Your task to perform on an android device: Open calendar and show me the first week of next month Image 0: 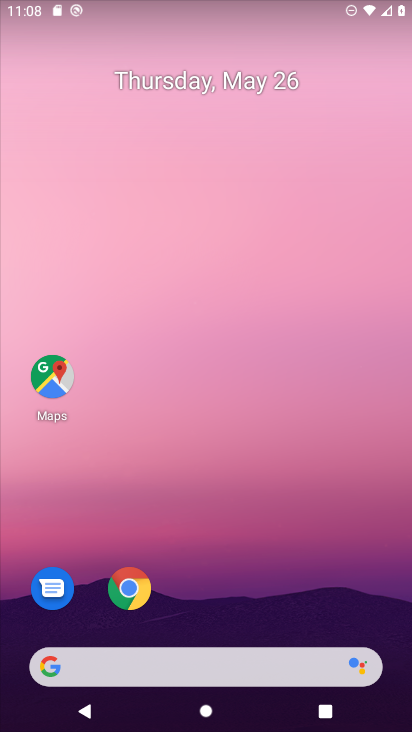
Step 0: drag from (382, 618) to (343, 95)
Your task to perform on an android device: Open calendar and show me the first week of next month Image 1: 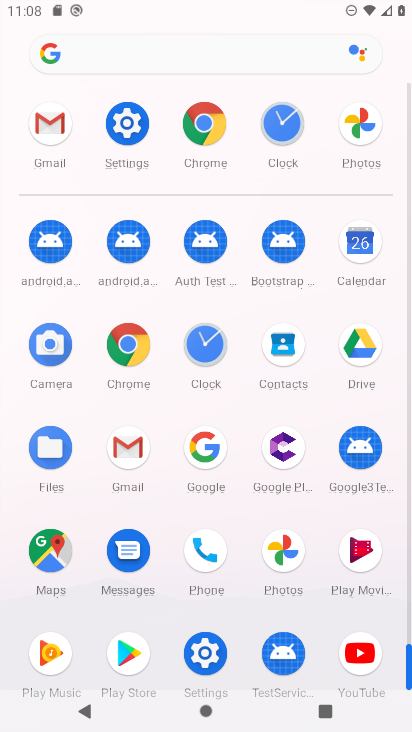
Step 1: click (357, 244)
Your task to perform on an android device: Open calendar and show me the first week of next month Image 2: 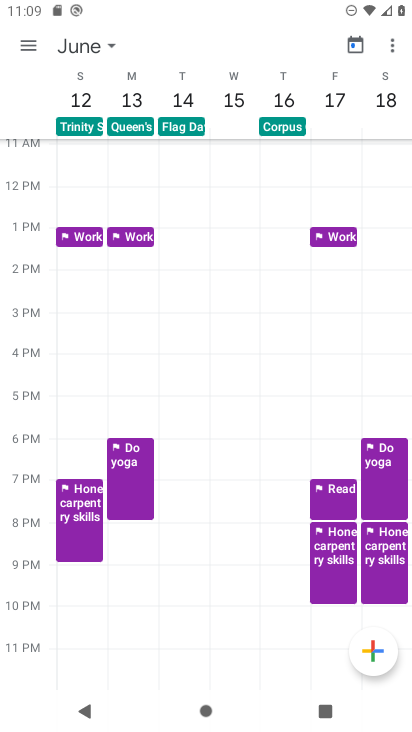
Step 2: click (28, 46)
Your task to perform on an android device: Open calendar and show me the first week of next month Image 3: 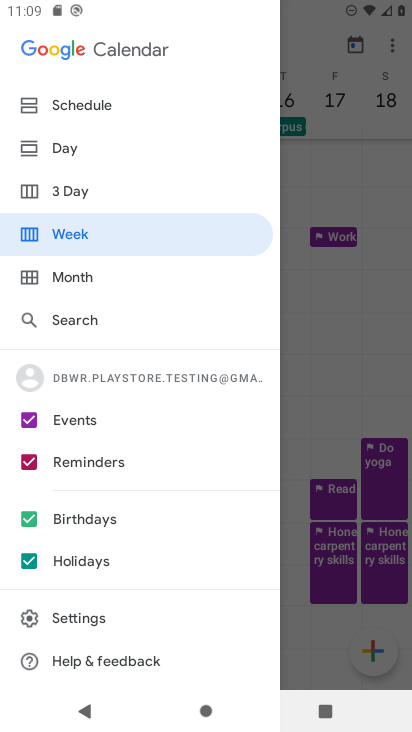
Step 3: click (98, 242)
Your task to perform on an android device: Open calendar and show me the first week of next month Image 4: 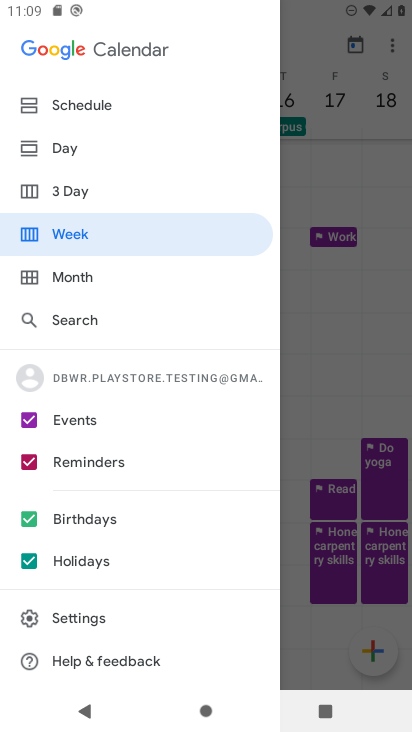
Step 4: click (96, 237)
Your task to perform on an android device: Open calendar and show me the first week of next month Image 5: 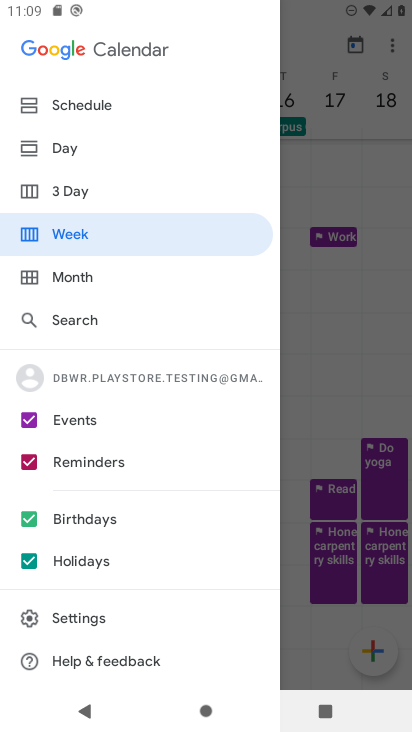
Step 5: click (109, 230)
Your task to perform on an android device: Open calendar and show me the first week of next month Image 6: 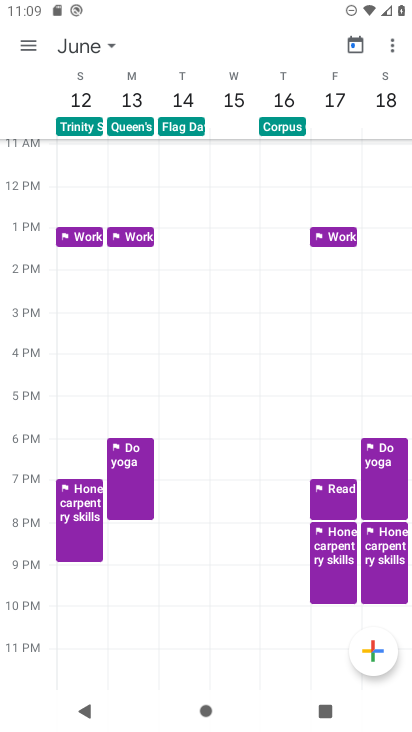
Step 6: click (110, 47)
Your task to perform on an android device: Open calendar and show me the first week of next month Image 7: 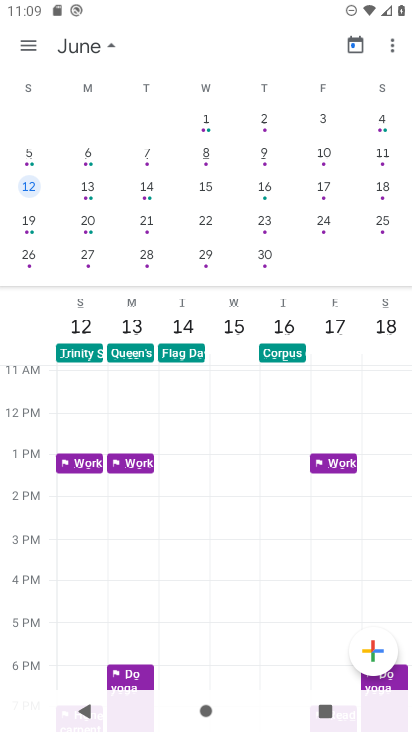
Step 7: click (23, 155)
Your task to perform on an android device: Open calendar and show me the first week of next month Image 8: 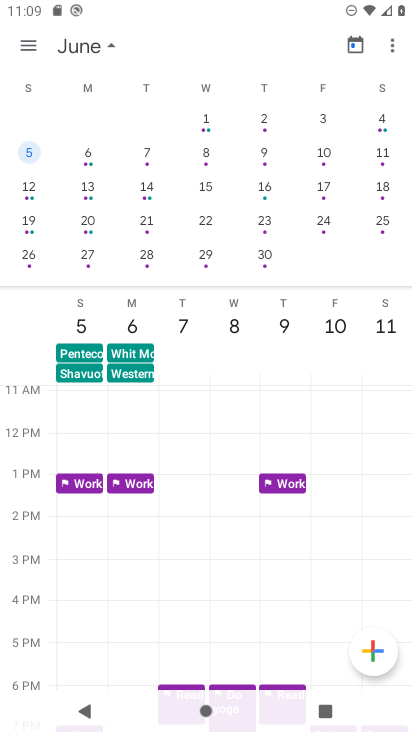
Step 8: task complete